Your task to perform on an android device: install app "Pandora - Music & Podcasts" Image 0: 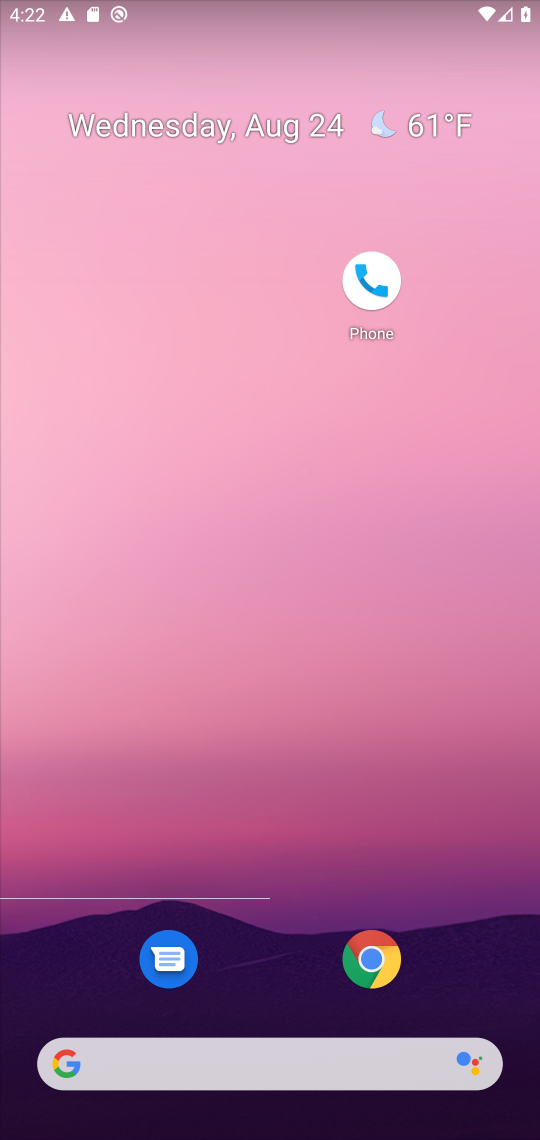
Step 0: drag from (286, 984) to (221, 71)
Your task to perform on an android device: install app "Pandora - Music & Podcasts" Image 1: 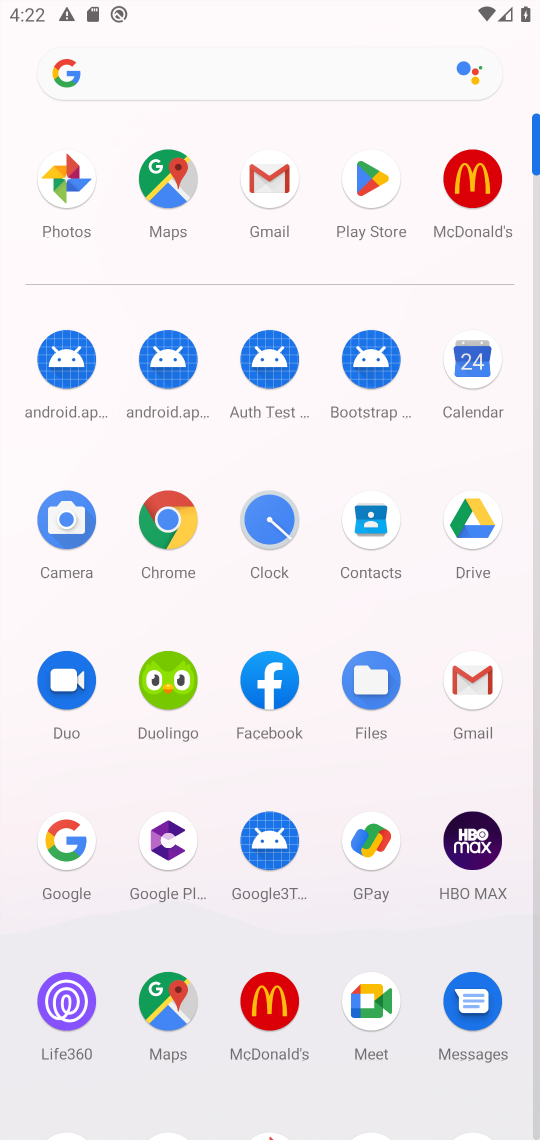
Step 1: click (351, 175)
Your task to perform on an android device: install app "Pandora - Music & Podcasts" Image 2: 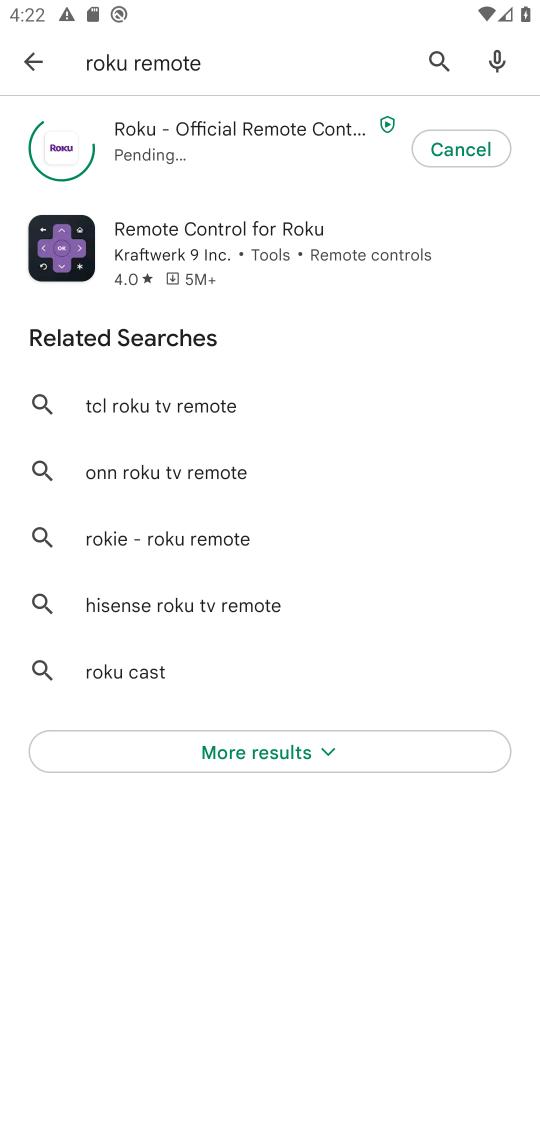
Step 2: click (452, 53)
Your task to perform on an android device: install app "Pandora - Music & Podcasts" Image 3: 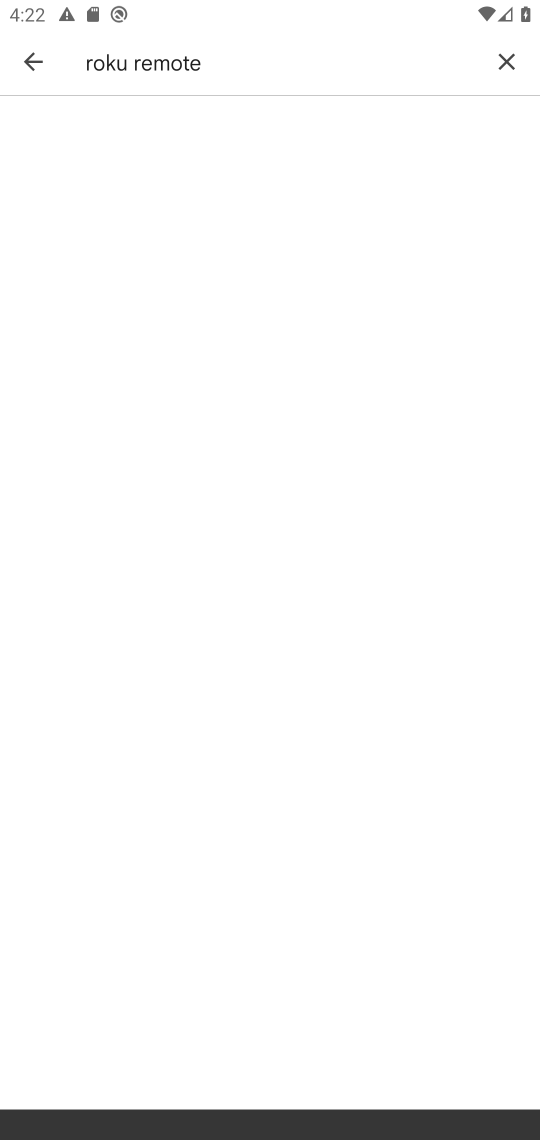
Step 3: click (506, 53)
Your task to perform on an android device: install app "Pandora - Music & Podcasts" Image 4: 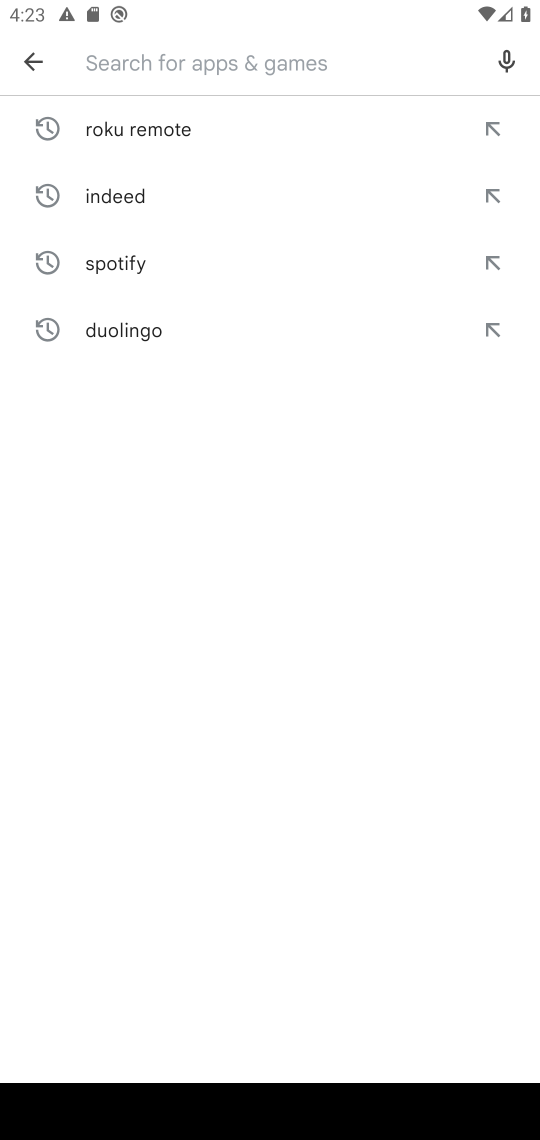
Step 4: type "pandora"
Your task to perform on an android device: install app "Pandora - Music & Podcasts" Image 5: 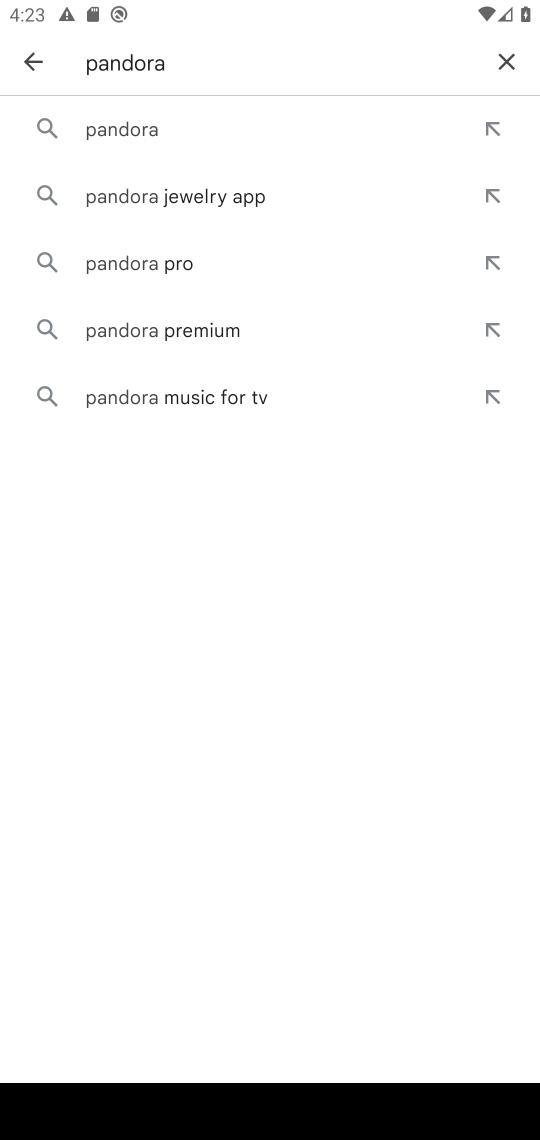
Step 5: click (252, 148)
Your task to perform on an android device: install app "Pandora - Music & Podcasts" Image 6: 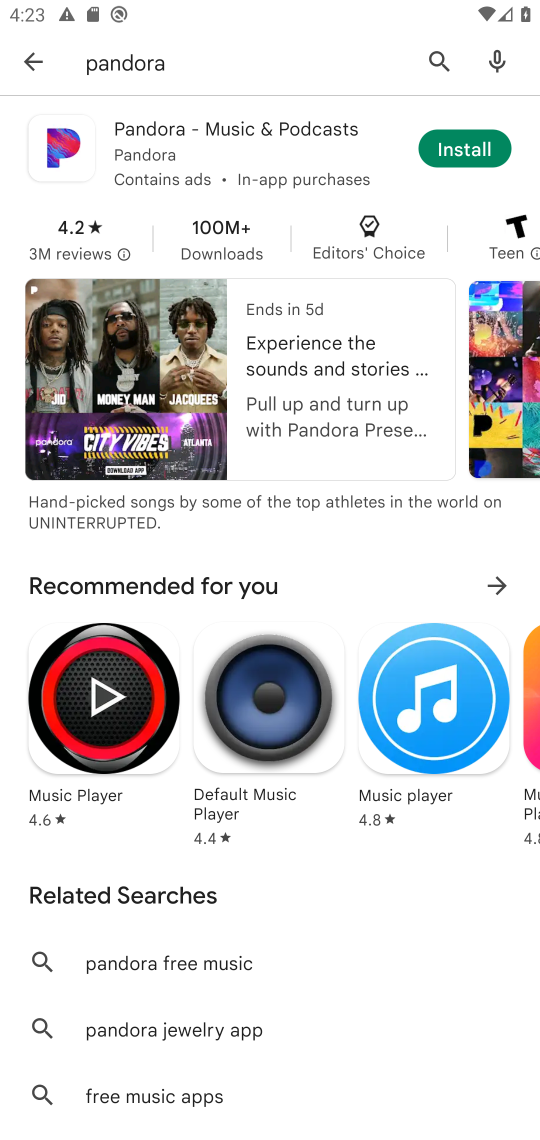
Step 6: click (425, 158)
Your task to perform on an android device: install app "Pandora - Music & Podcasts" Image 7: 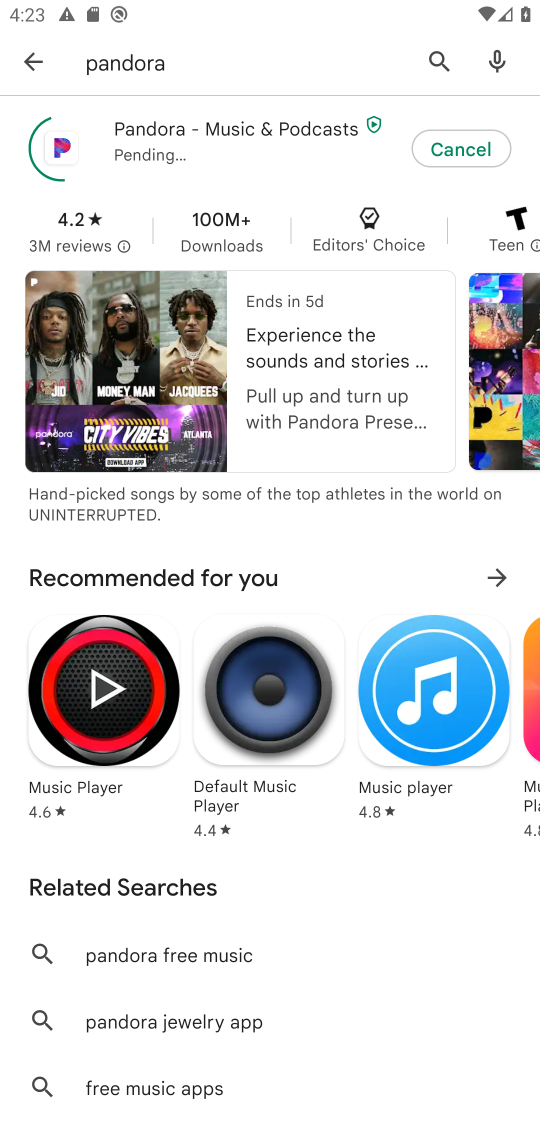
Step 7: task complete